Your task to perform on an android device: Go to battery settings Image 0: 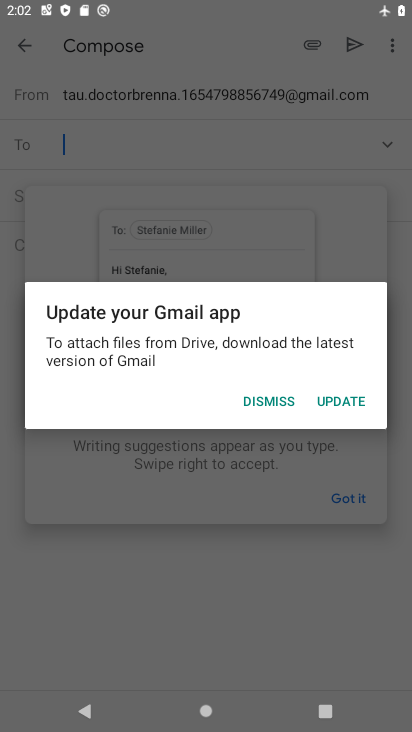
Step 0: press home button
Your task to perform on an android device: Go to battery settings Image 1: 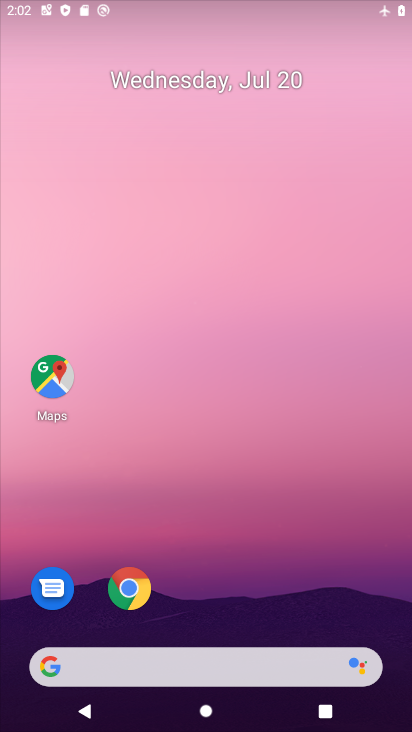
Step 1: drag from (232, 574) to (331, 3)
Your task to perform on an android device: Go to battery settings Image 2: 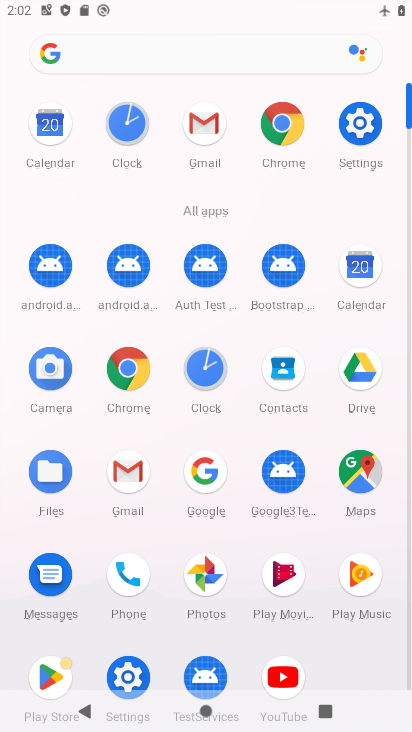
Step 2: click (353, 127)
Your task to perform on an android device: Go to battery settings Image 3: 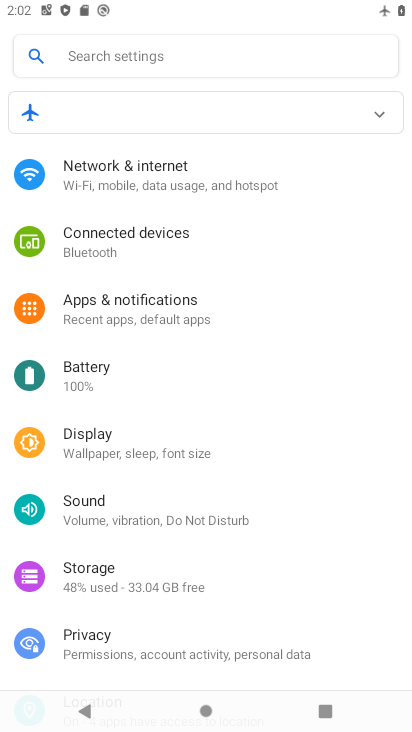
Step 3: click (87, 381)
Your task to perform on an android device: Go to battery settings Image 4: 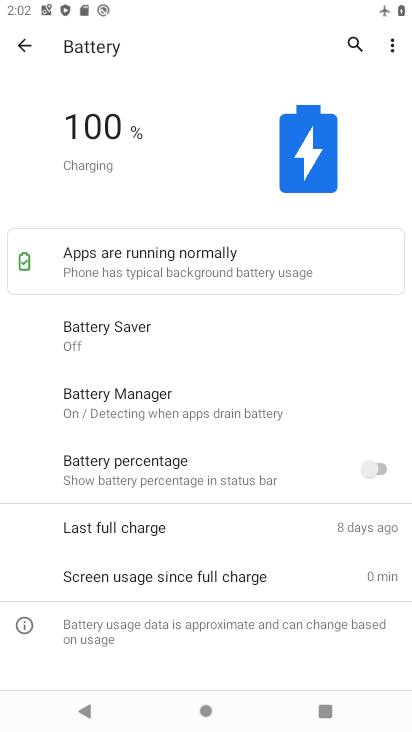
Step 4: task complete